Your task to perform on an android device: turn off javascript in the chrome app Image 0: 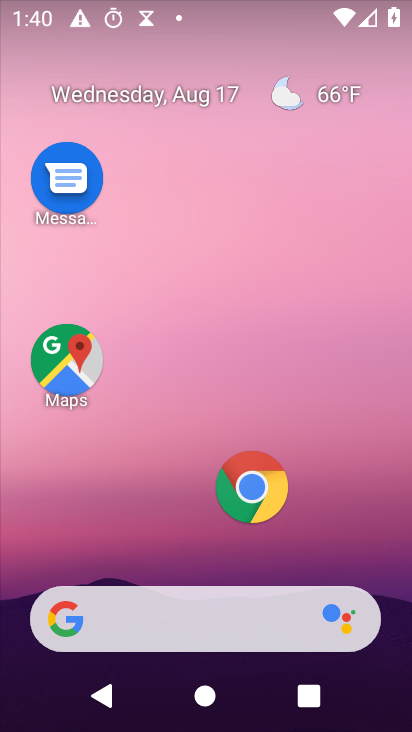
Step 0: press home button
Your task to perform on an android device: turn off javascript in the chrome app Image 1: 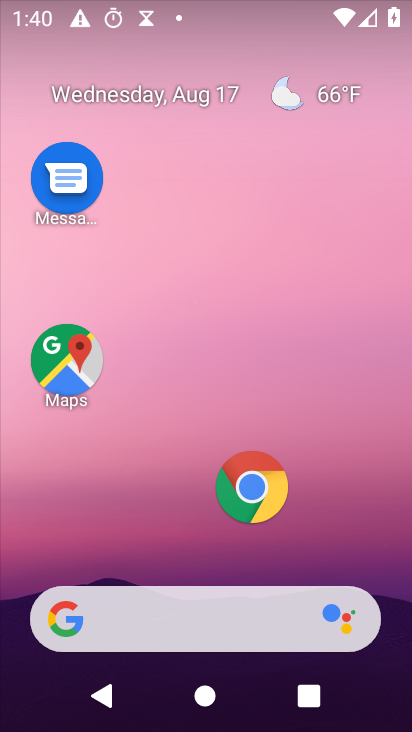
Step 1: click (259, 484)
Your task to perform on an android device: turn off javascript in the chrome app Image 2: 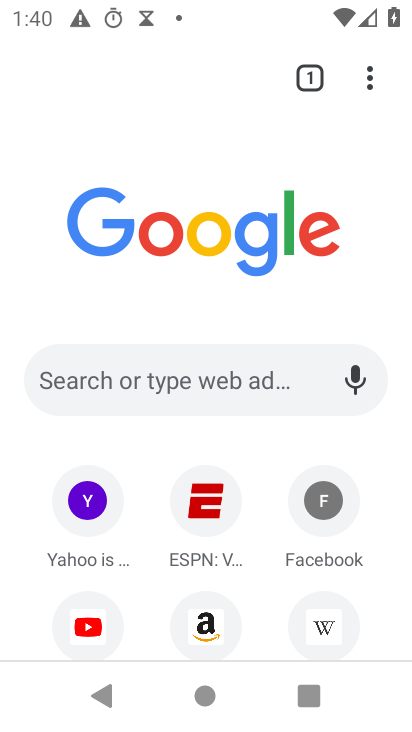
Step 2: drag from (380, 75) to (95, 562)
Your task to perform on an android device: turn off javascript in the chrome app Image 3: 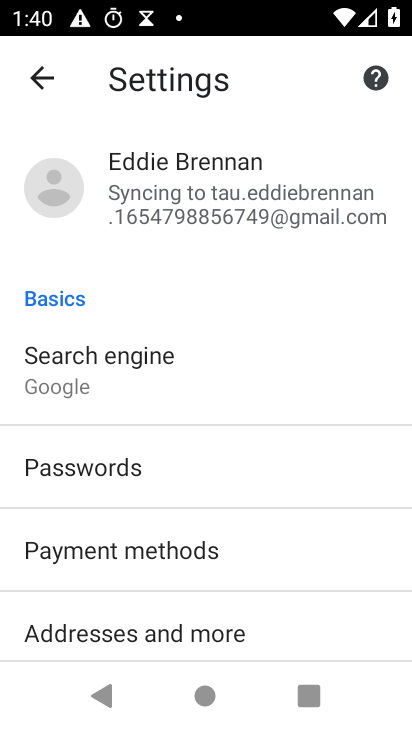
Step 3: drag from (254, 620) to (358, 165)
Your task to perform on an android device: turn off javascript in the chrome app Image 4: 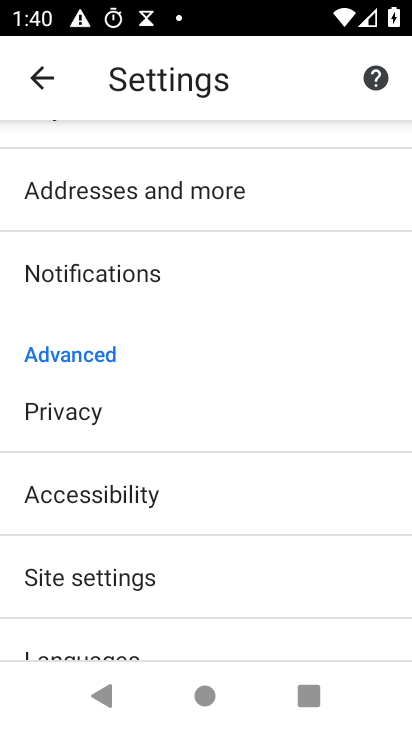
Step 4: click (88, 589)
Your task to perform on an android device: turn off javascript in the chrome app Image 5: 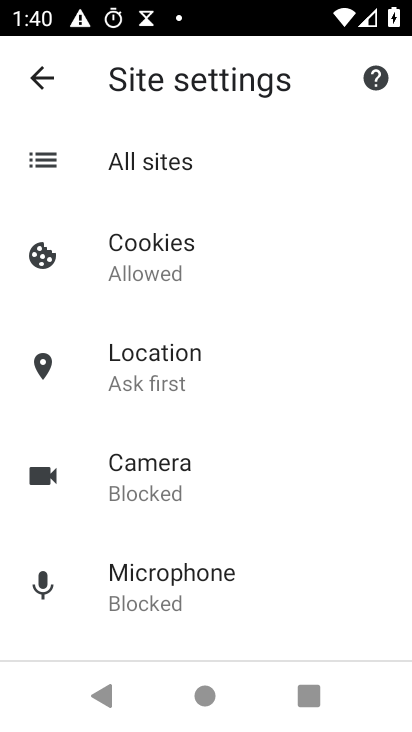
Step 5: drag from (252, 538) to (297, 227)
Your task to perform on an android device: turn off javascript in the chrome app Image 6: 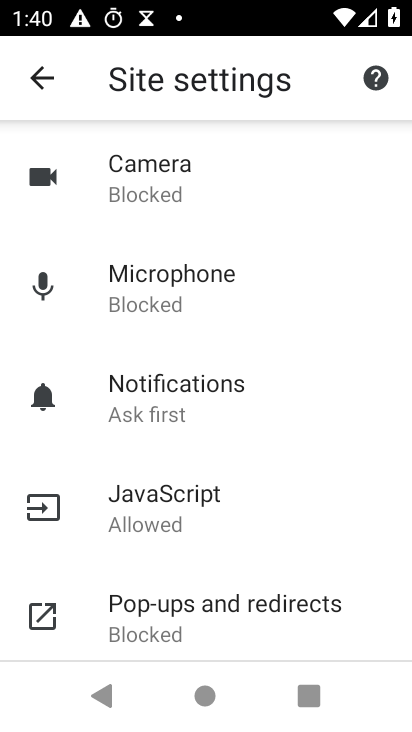
Step 6: click (139, 511)
Your task to perform on an android device: turn off javascript in the chrome app Image 7: 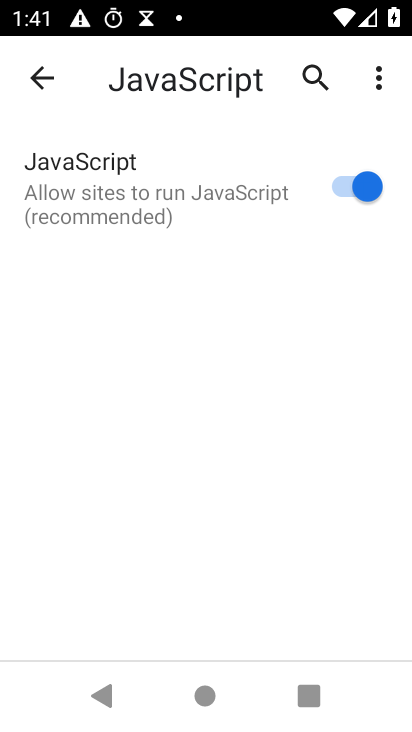
Step 7: click (363, 184)
Your task to perform on an android device: turn off javascript in the chrome app Image 8: 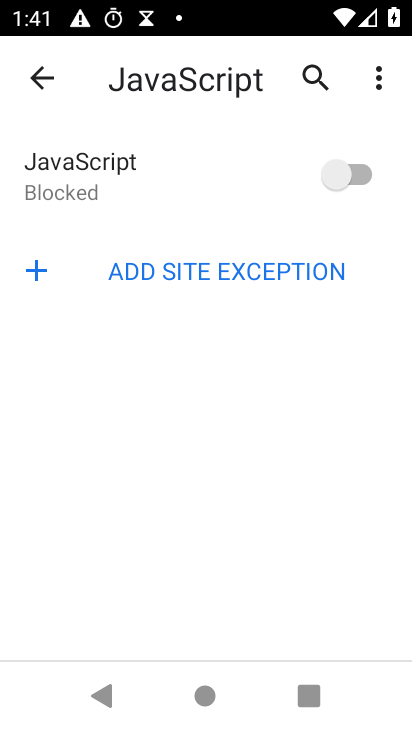
Step 8: task complete